Your task to perform on an android device: toggle sleep mode Image 0: 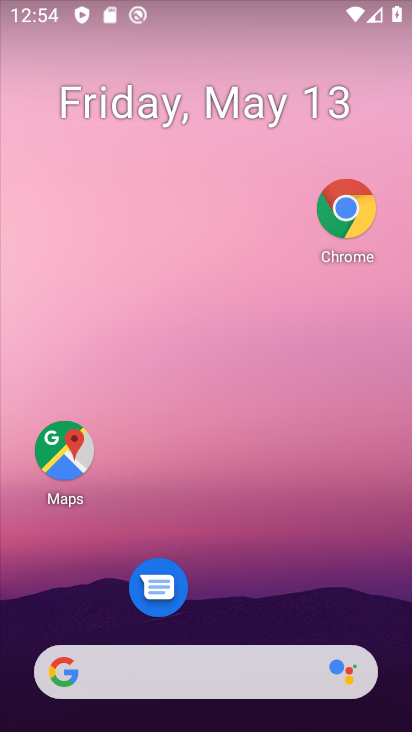
Step 0: drag from (251, 618) to (230, 55)
Your task to perform on an android device: toggle sleep mode Image 1: 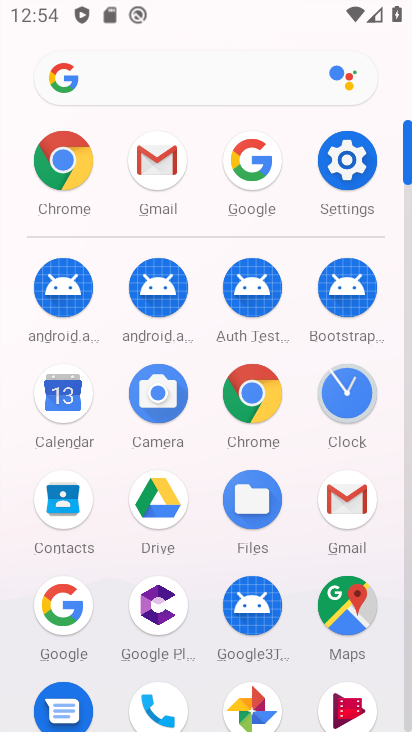
Step 1: click (351, 158)
Your task to perform on an android device: toggle sleep mode Image 2: 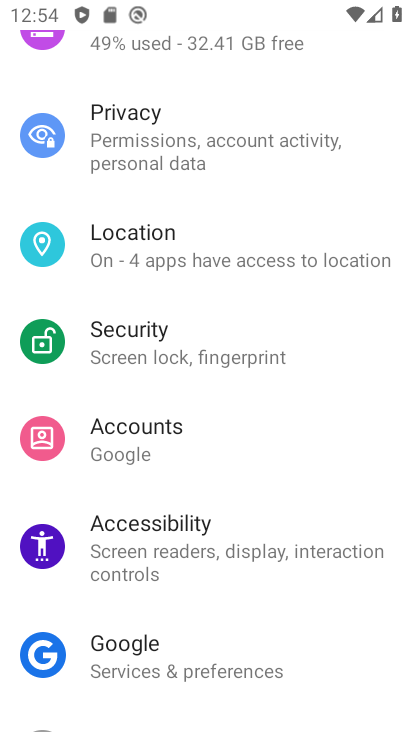
Step 2: drag from (163, 96) to (169, 668)
Your task to perform on an android device: toggle sleep mode Image 3: 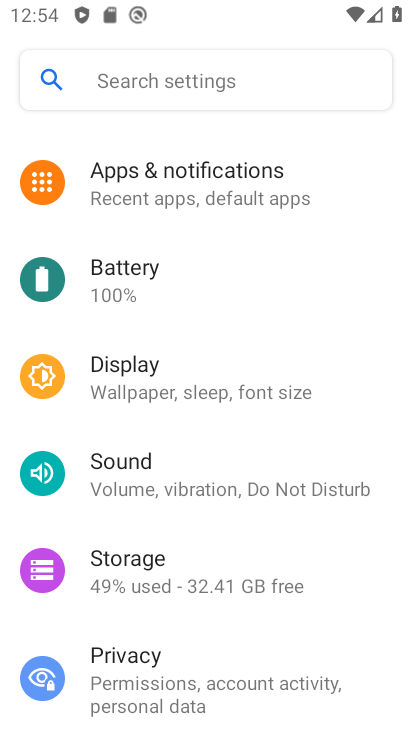
Step 3: click (137, 67)
Your task to perform on an android device: toggle sleep mode Image 4: 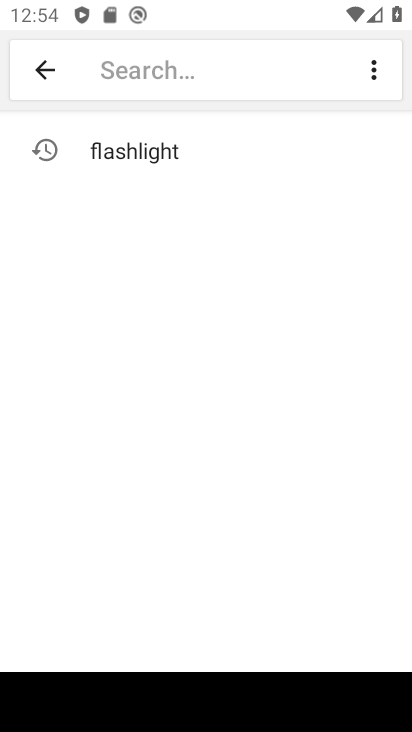
Step 4: type "sleep mode"
Your task to perform on an android device: toggle sleep mode Image 5: 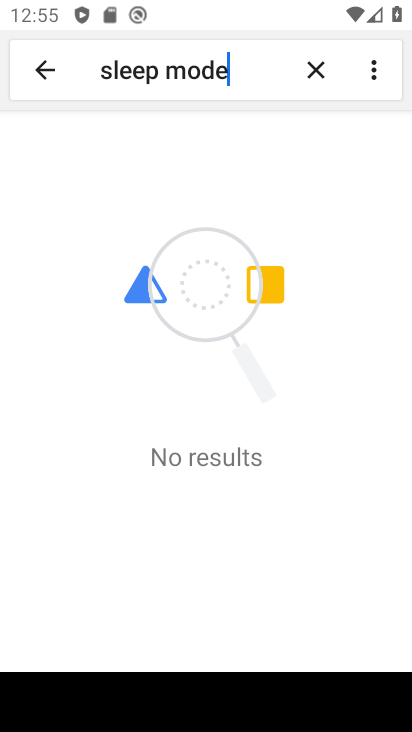
Step 5: task complete